Your task to perform on an android device: Open the stopwatch Image 0: 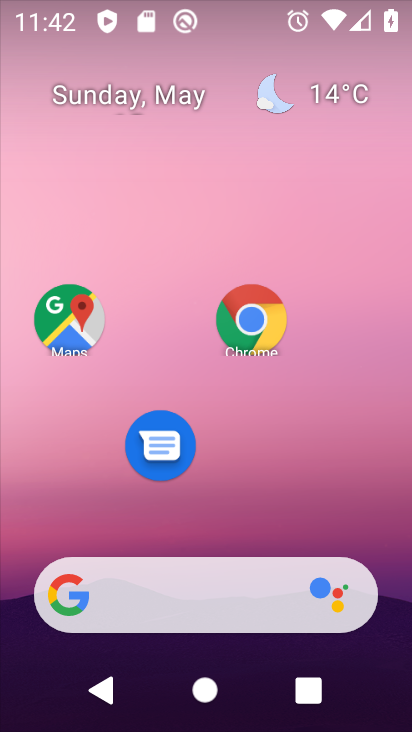
Step 0: press home button
Your task to perform on an android device: Open the stopwatch Image 1: 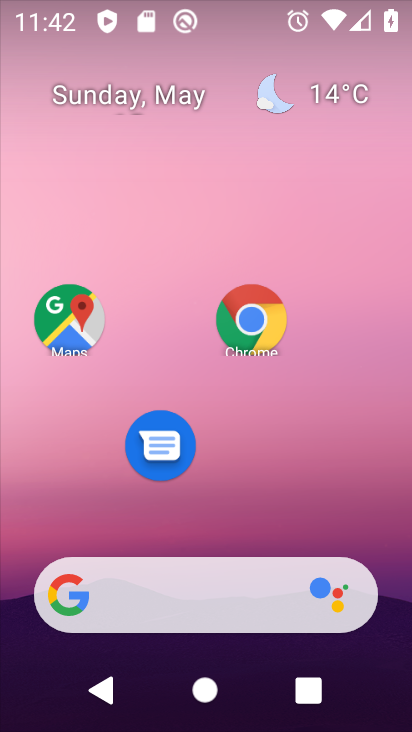
Step 1: click (242, 417)
Your task to perform on an android device: Open the stopwatch Image 2: 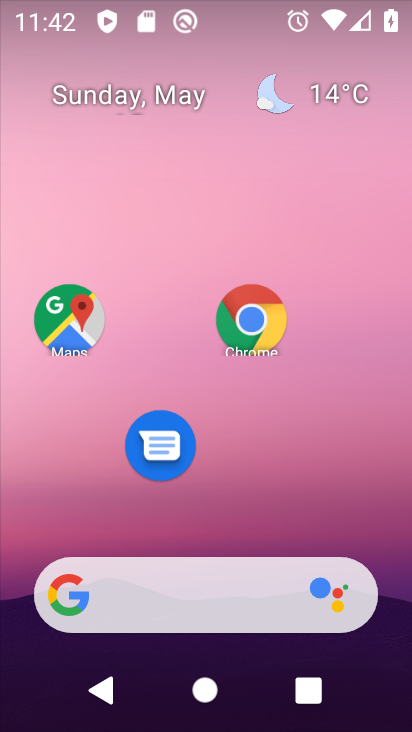
Step 2: drag from (191, 538) to (377, 54)
Your task to perform on an android device: Open the stopwatch Image 3: 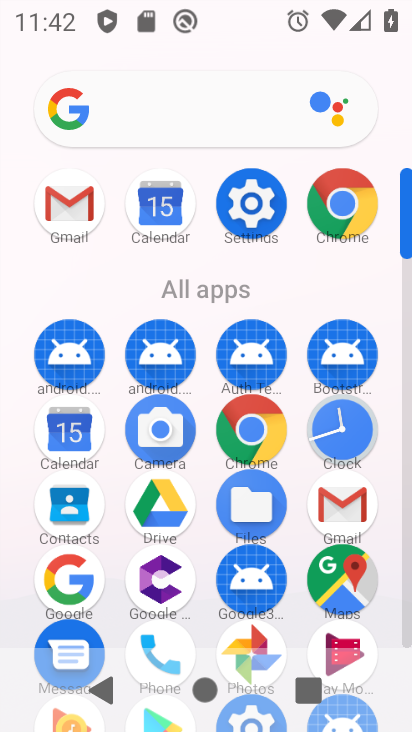
Step 3: click (340, 447)
Your task to perform on an android device: Open the stopwatch Image 4: 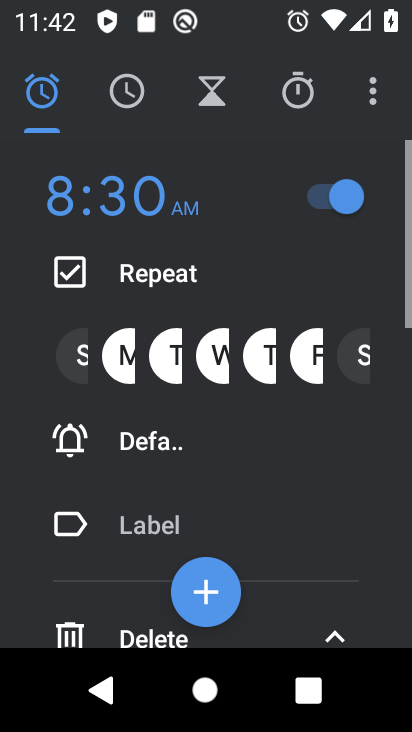
Step 4: click (299, 94)
Your task to perform on an android device: Open the stopwatch Image 5: 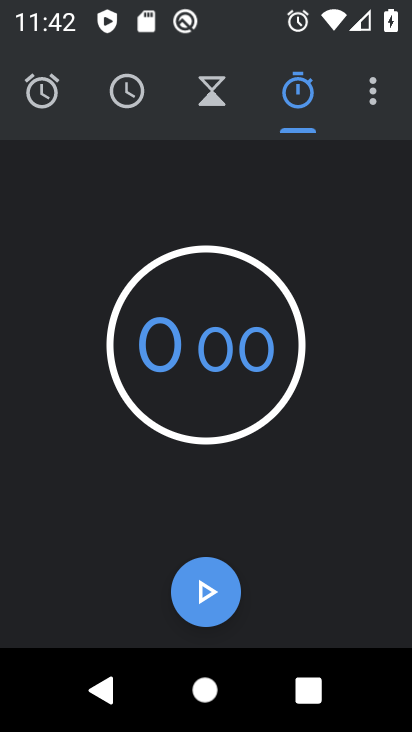
Step 5: click (223, 361)
Your task to perform on an android device: Open the stopwatch Image 6: 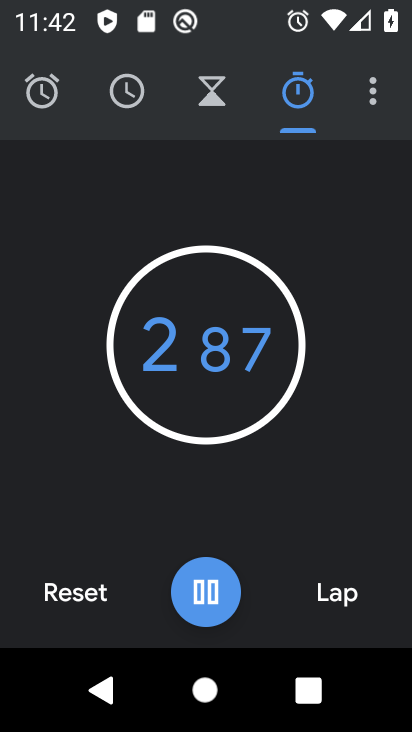
Step 6: click (210, 357)
Your task to perform on an android device: Open the stopwatch Image 7: 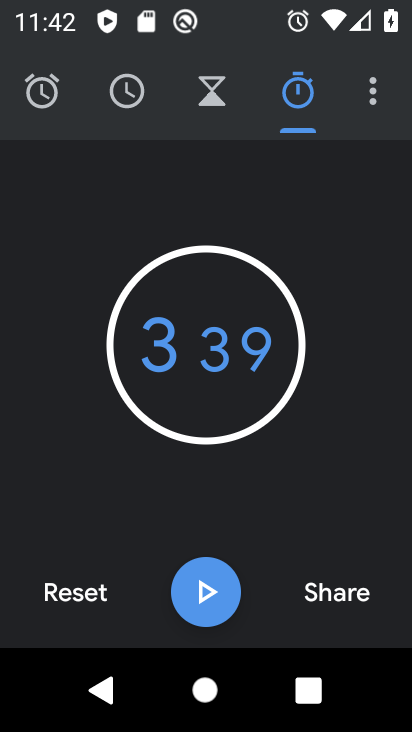
Step 7: task complete